Your task to perform on an android device: What is the recent news? Image 0: 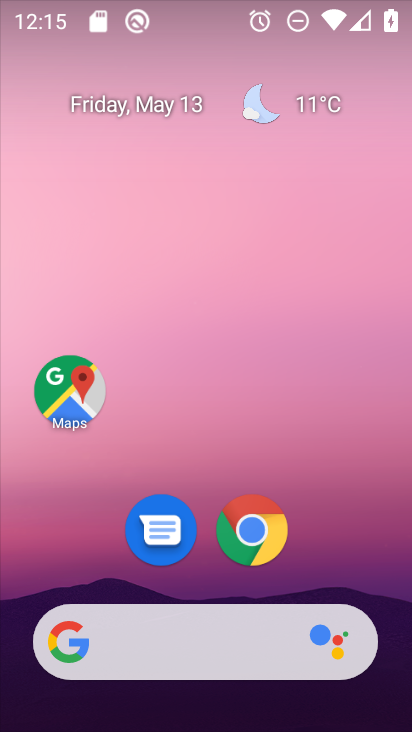
Step 0: click (82, 645)
Your task to perform on an android device: What is the recent news? Image 1: 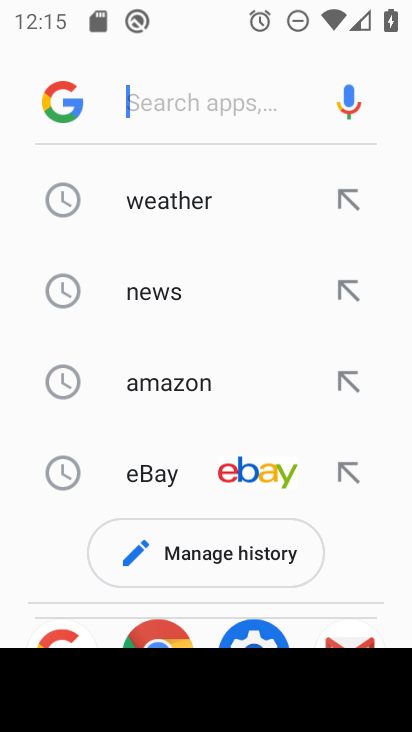
Step 1: click (149, 298)
Your task to perform on an android device: What is the recent news? Image 2: 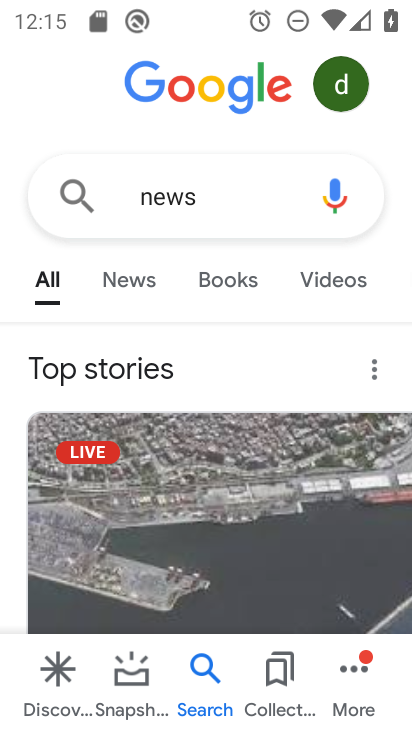
Step 2: click (140, 273)
Your task to perform on an android device: What is the recent news? Image 3: 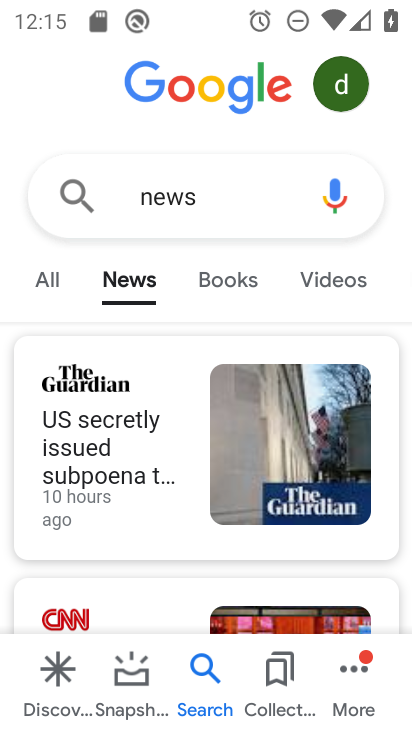
Step 3: task complete